Your task to perform on an android device: turn on javascript in the chrome app Image 0: 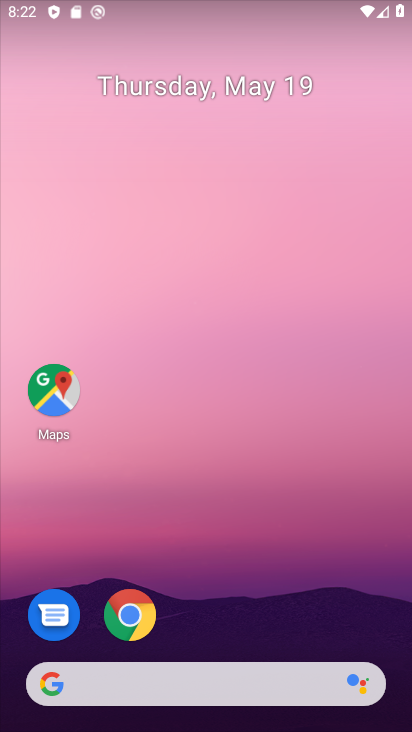
Step 0: click (138, 624)
Your task to perform on an android device: turn on javascript in the chrome app Image 1: 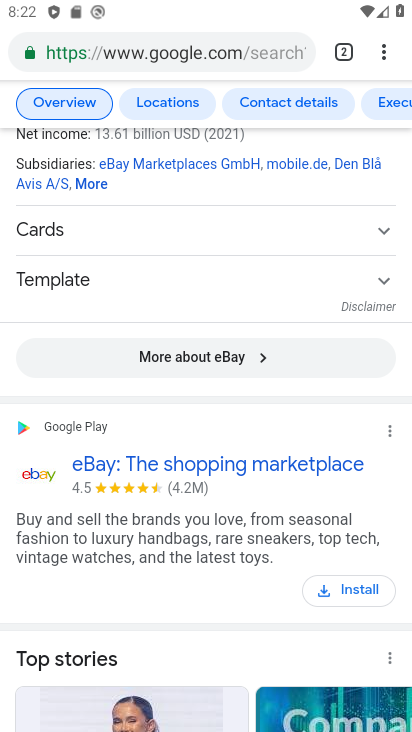
Step 1: click (381, 49)
Your task to perform on an android device: turn on javascript in the chrome app Image 2: 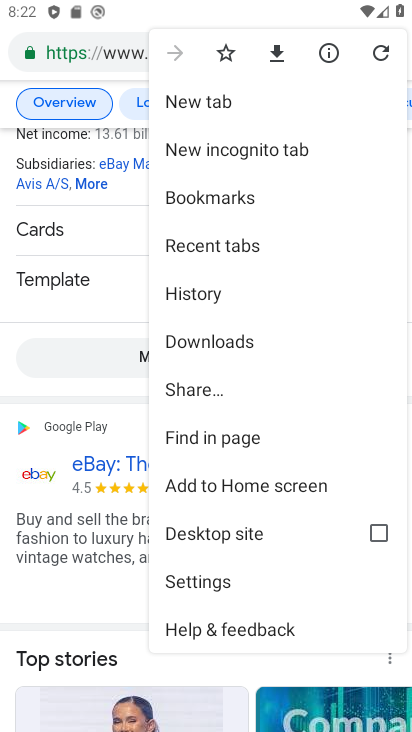
Step 2: click (247, 576)
Your task to perform on an android device: turn on javascript in the chrome app Image 3: 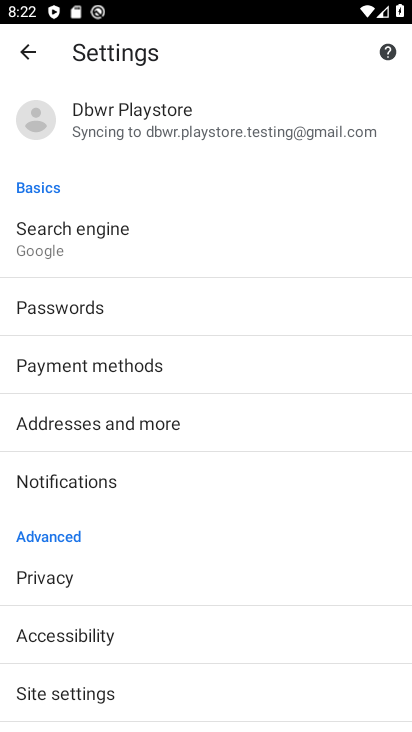
Step 3: click (123, 691)
Your task to perform on an android device: turn on javascript in the chrome app Image 4: 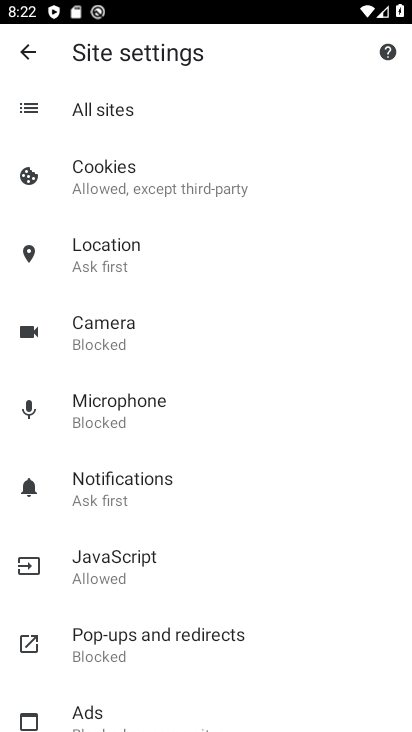
Step 4: click (117, 566)
Your task to perform on an android device: turn on javascript in the chrome app Image 5: 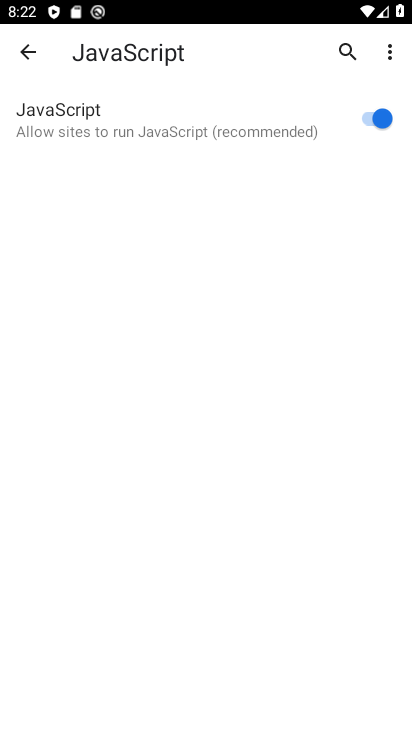
Step 5: task complete